Your task to perform on an android device: remove spam from my inbox in the gmail app Image 0: 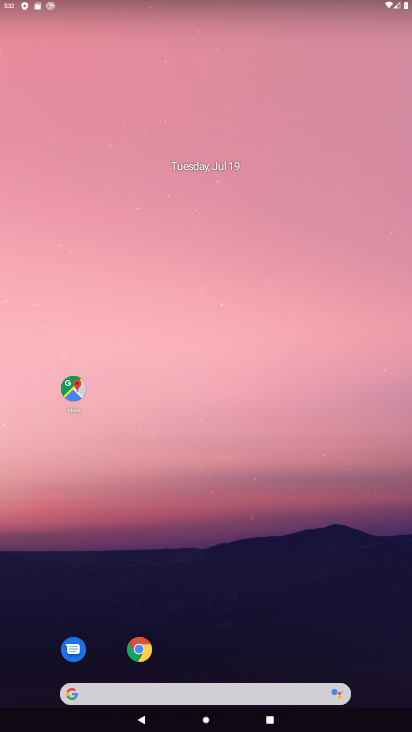
Step 0: drag from (265, 611) to (246, 106)
Your task to perform on an android device: remove spam from my inbox in the gmail app Image 1: 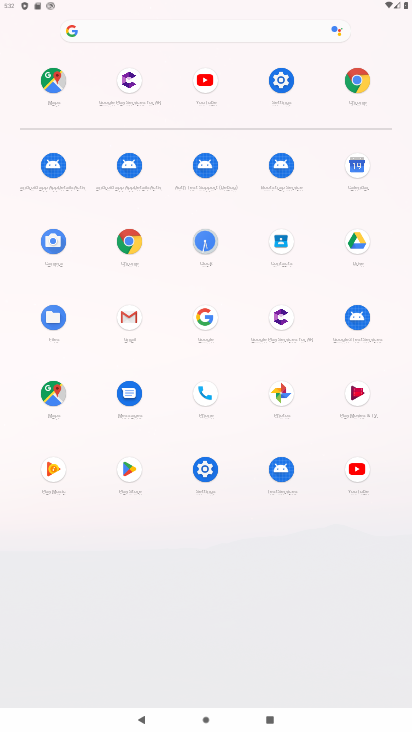
Step 1: click (128, 314)
Your task to perform on an android device: remove spam from my inbox in the gmail app Image 2: 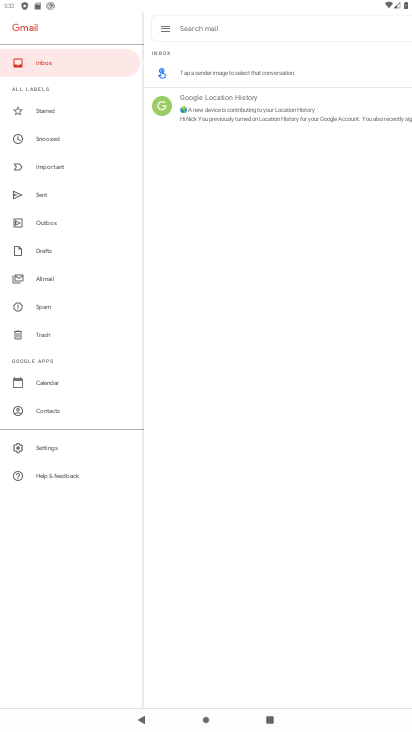
Step 2: task complete